Your task to perform on an android device: Play the last video I watched on Youtube Image 0: 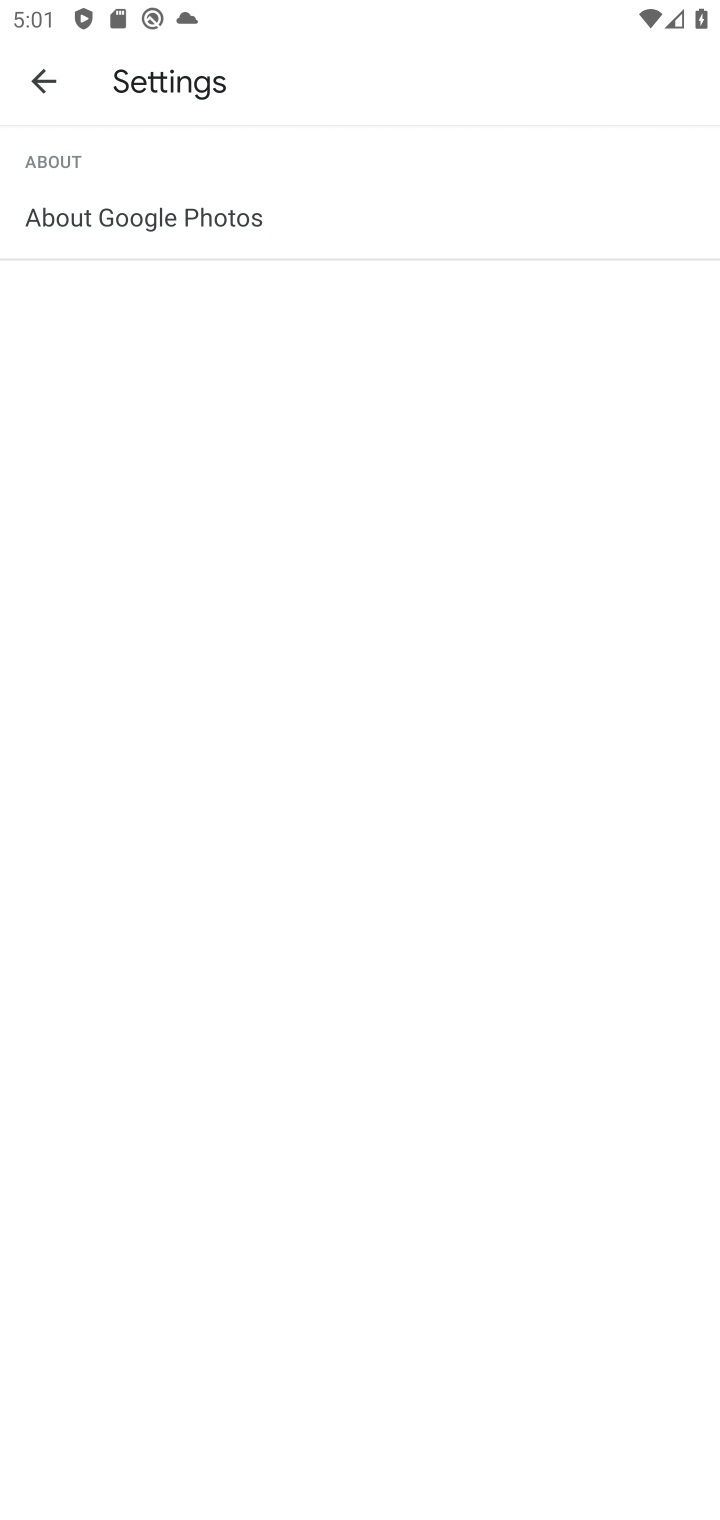
Step 0: press back button
Your task to perform on an android device: Play the last video I watched on Youtube Image 1: 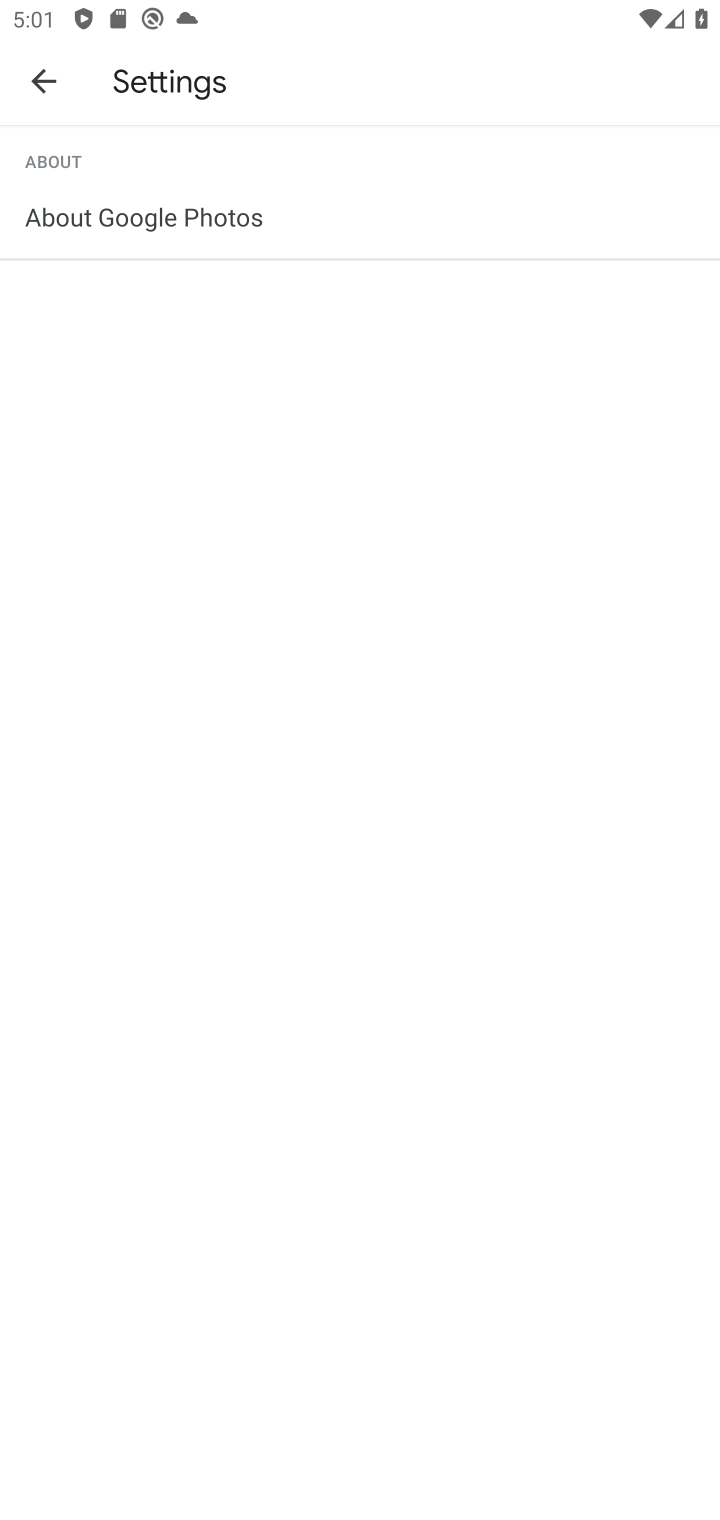
Step 1: press home button
Your task to perform on an android device: Play the last video I watched on Youtube Image 2: 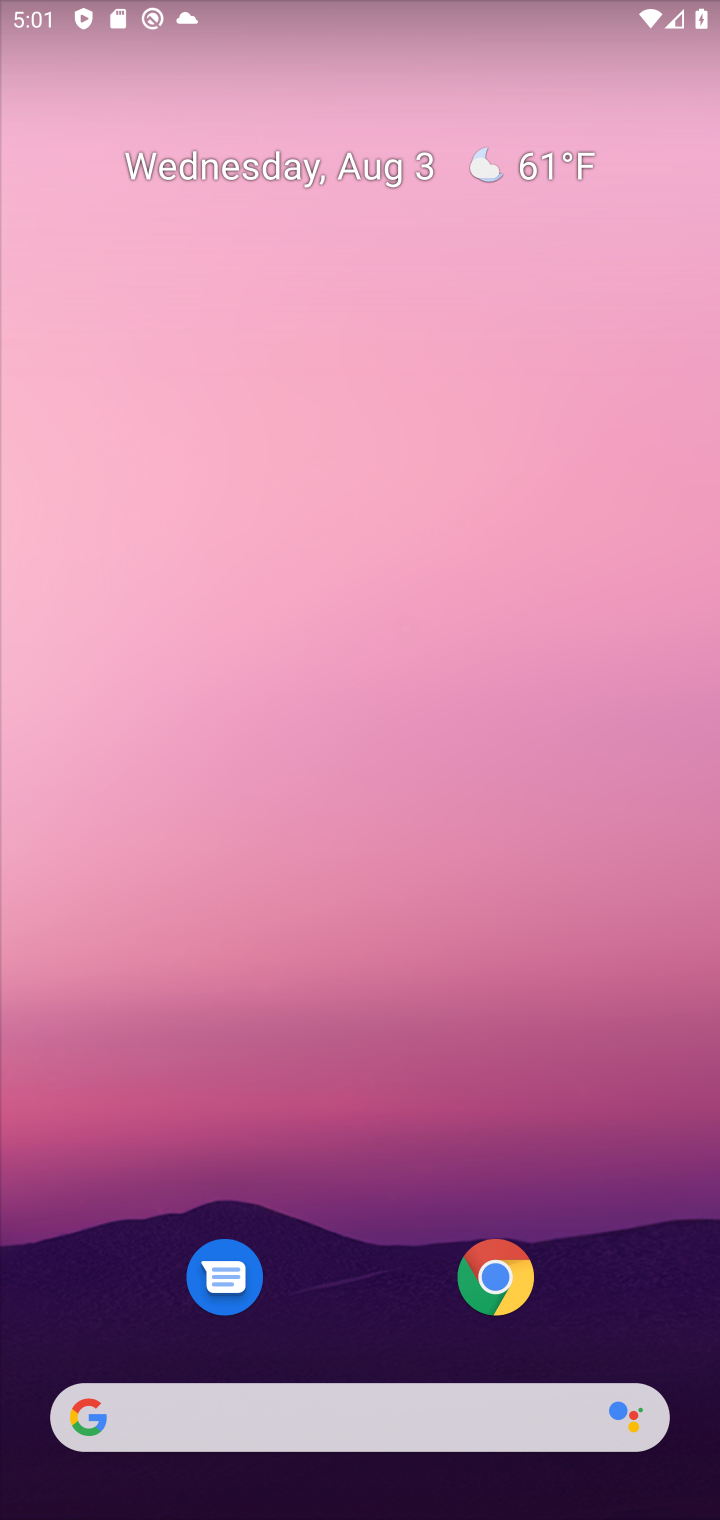
Step 2: drag from (397, 1152) to (480, 161)
Your task to perform on an android device: Play the last video I watched on Youtube Image 3: 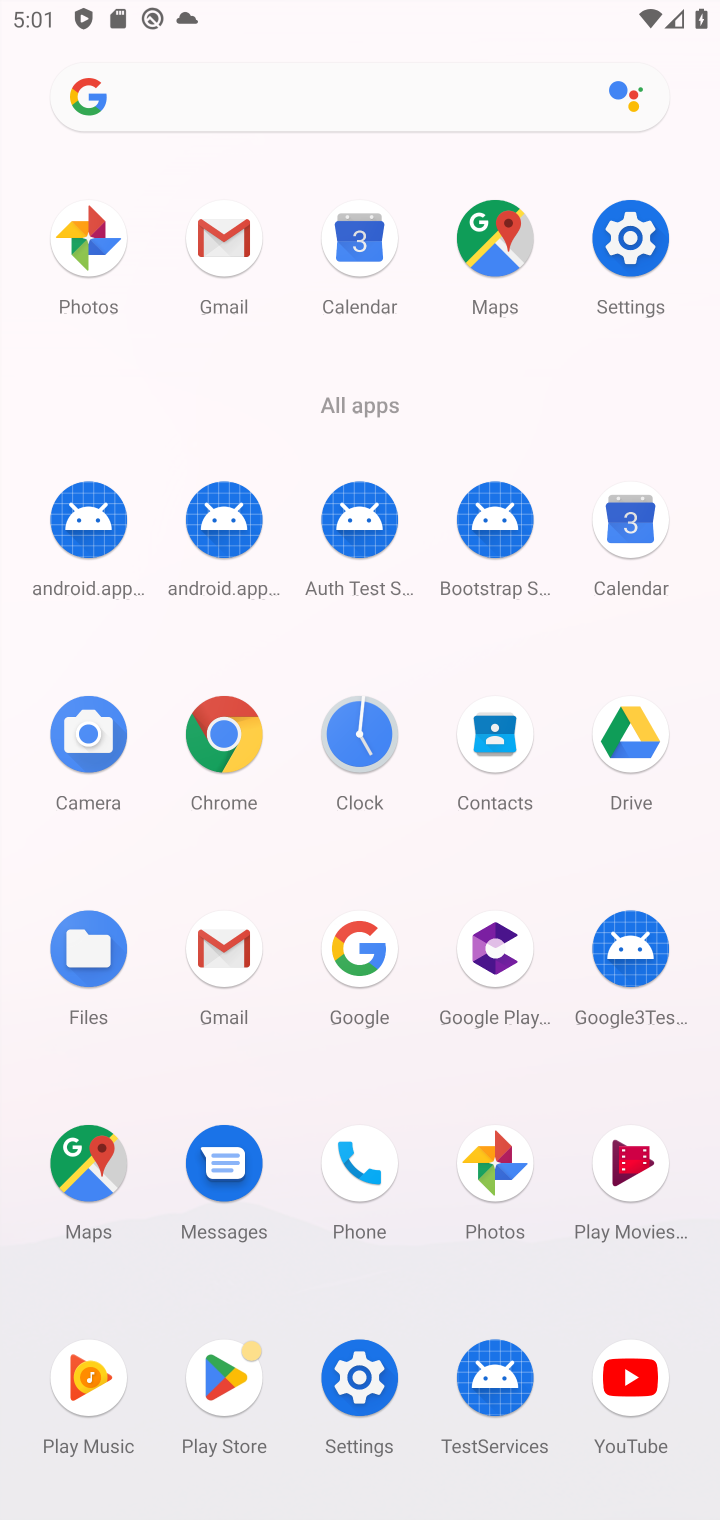
Step 3: click (626, 1365)
Your task to perform on an android device: Play the last video I watched on Youtube Image 4: 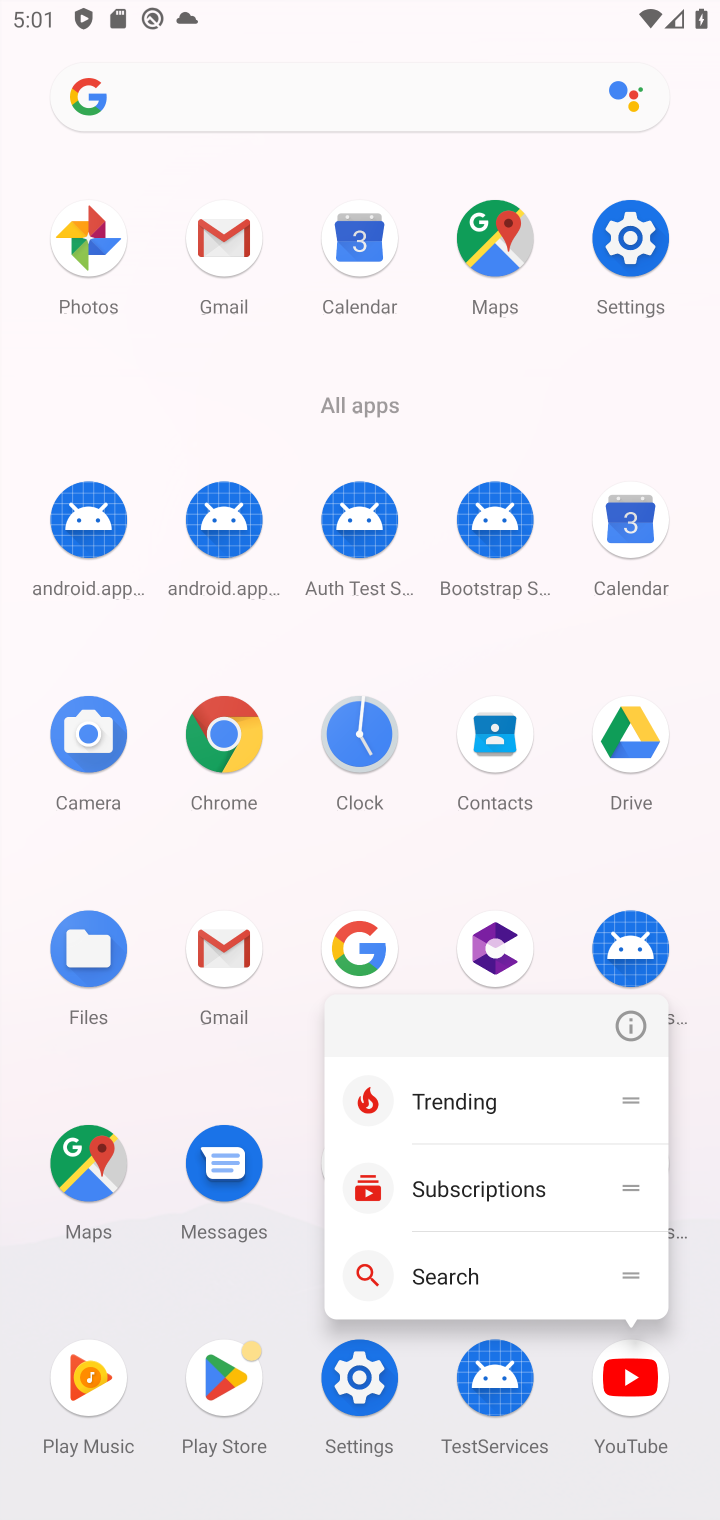
Step 4: click (635, 1388)
Your task to perform on an android device: Play the last video I watched on Youtube Image 5: 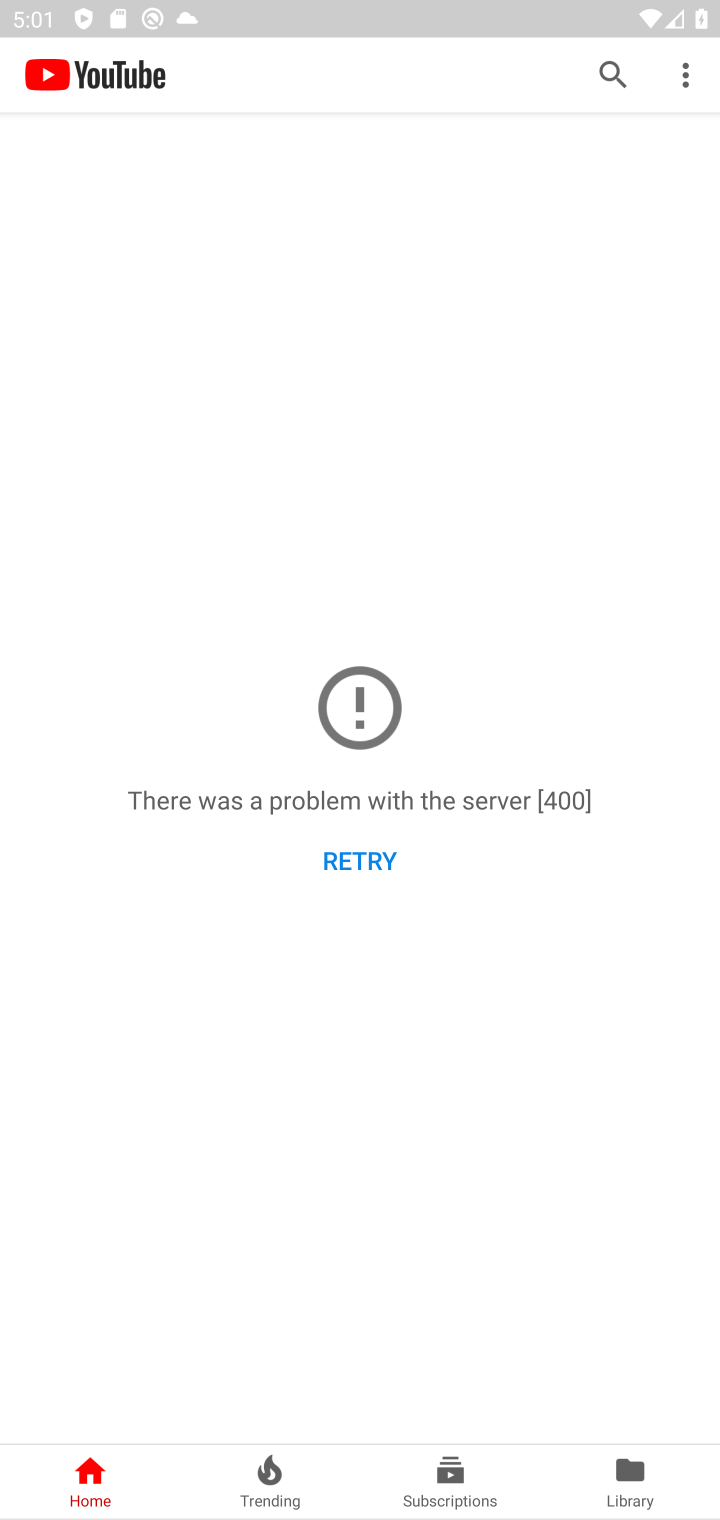
Step 5: click (629, 1471)
Your task to perform on an android device: Play the last video I watched on Youtube Image 6: 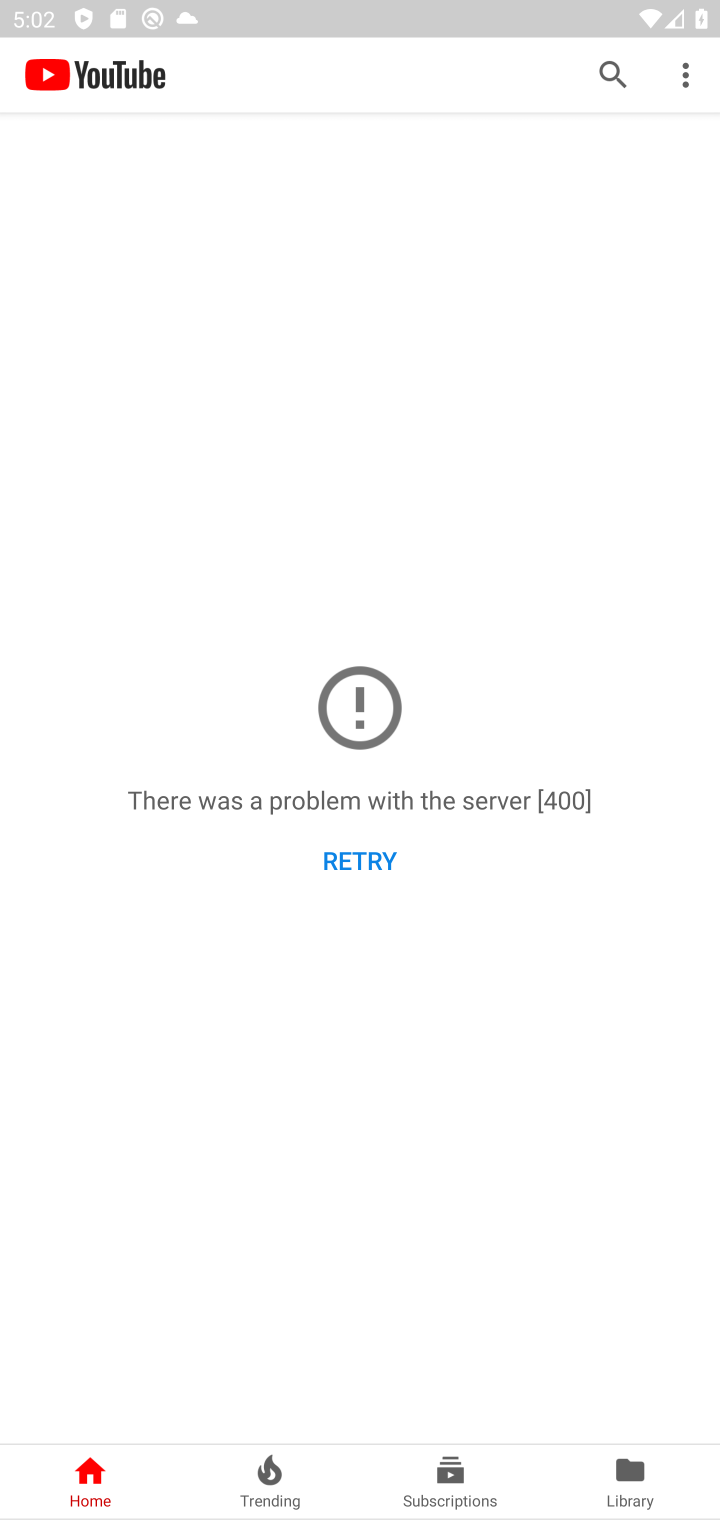
Step 6: click (623, 1490)
Your task to perform on an android device: Play the last video I watched on Youtube Image 7: 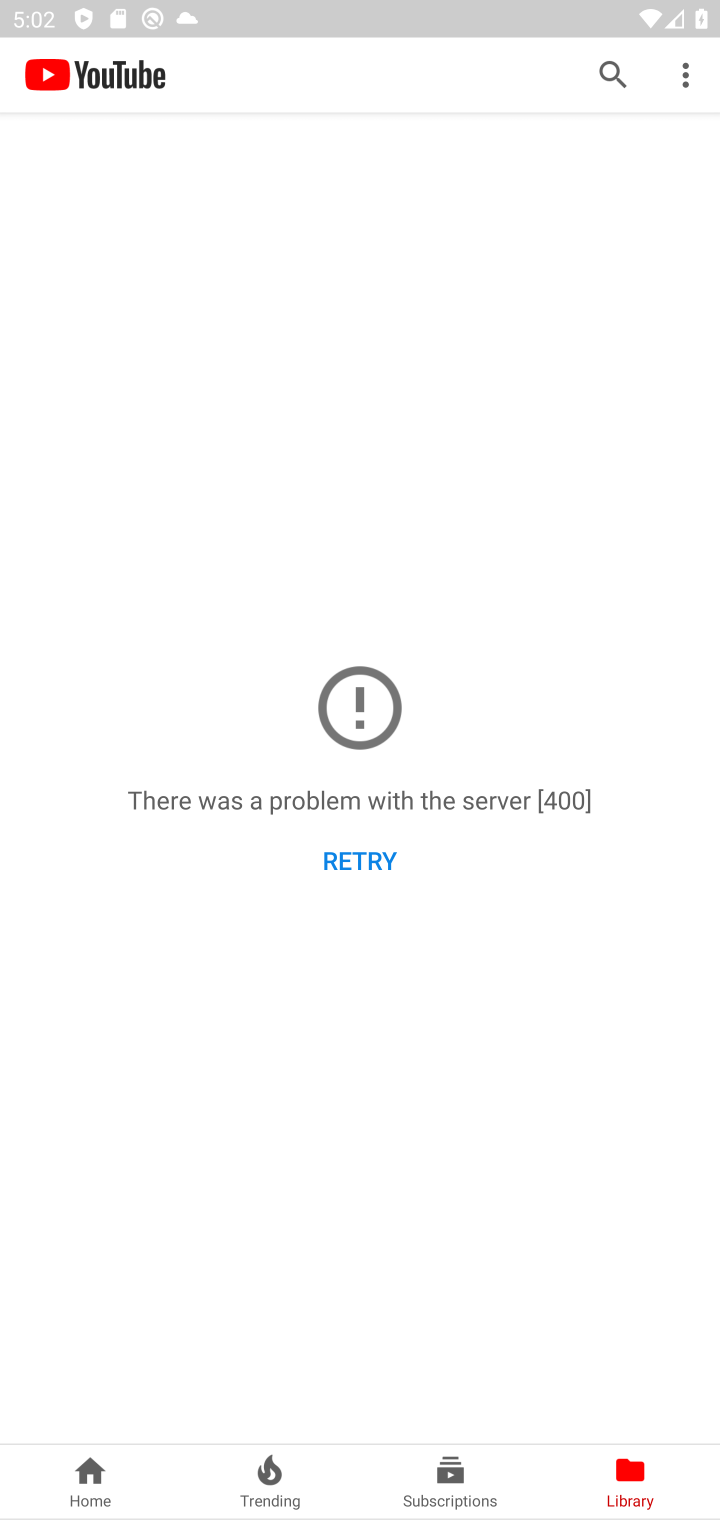
Step 7: task complete